Your task to perform on an android device: Open Chrome and go to settings Image 0: 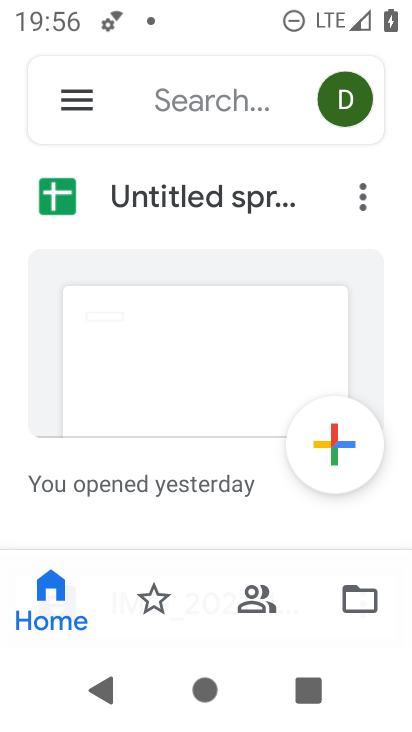
Step 0: press home button
Your task to perform on an android device: Open Chrome and go to settings Image 1: 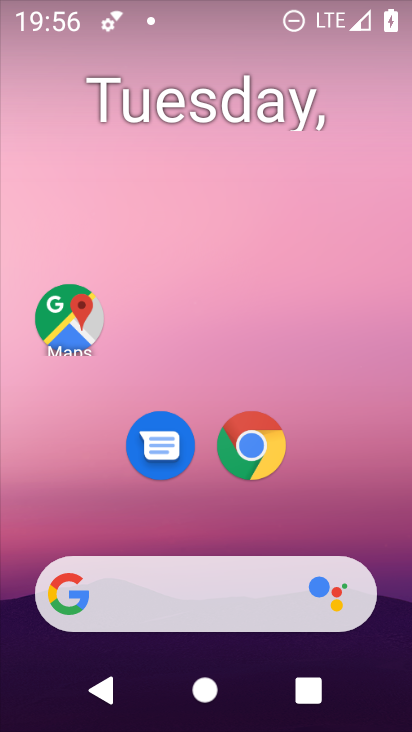
Step 1: click (259, 455)
Your task to perform on an android device: Open Chrome and go to settings Image 2: 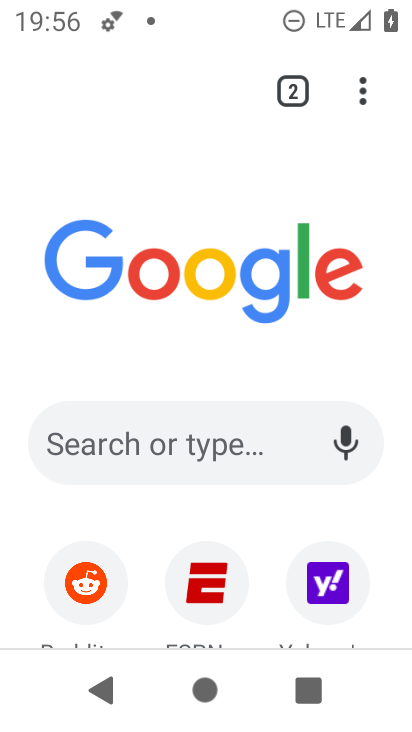
Step 2: click (364, 103)
Your task to perform on an android device: Open Chrome and go to settings Image 3: 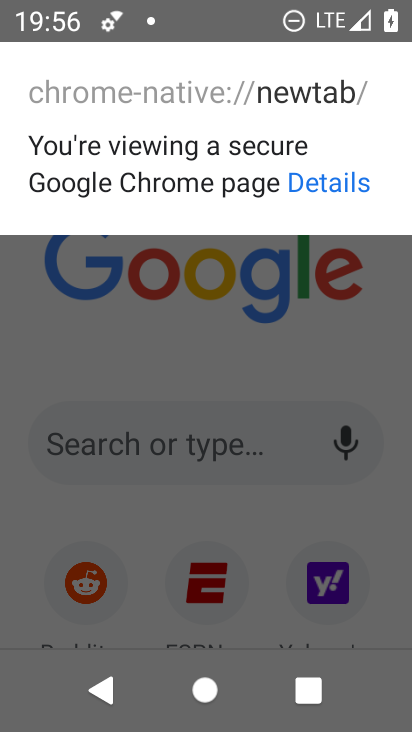
Step 3: click (262, 391)
Your task to perform on an android device: Open Chrome and go to settings Image 4: 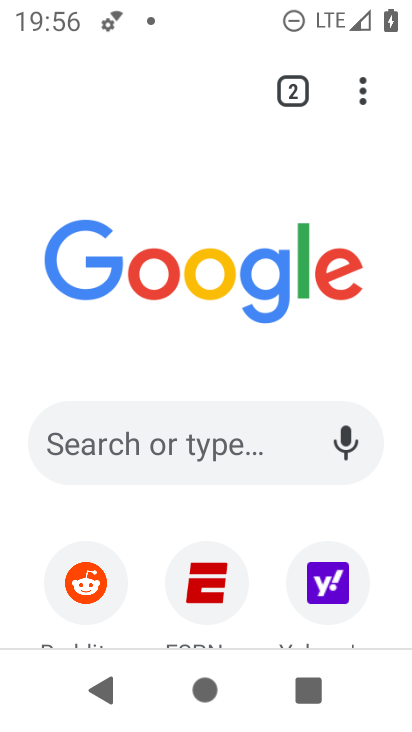
Step 4: click (364, 89)
Your task to perform on an android device: Open Chrome and go to settings Image 5: 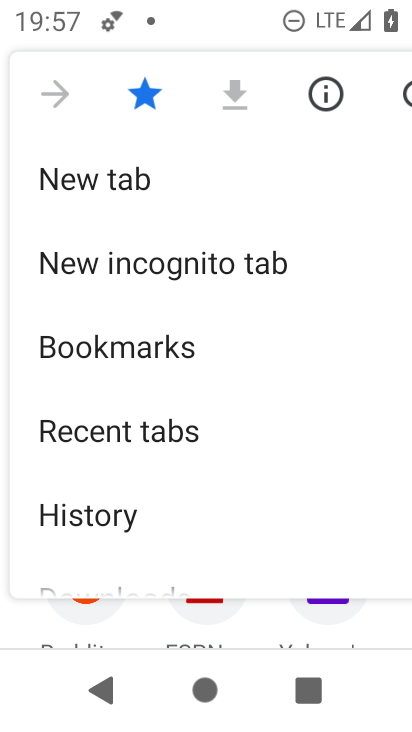
Step 5: drag from (150, 466) to (112, 165)
Your task to perform on an android device: Open Chrome and go to settings Image 6: 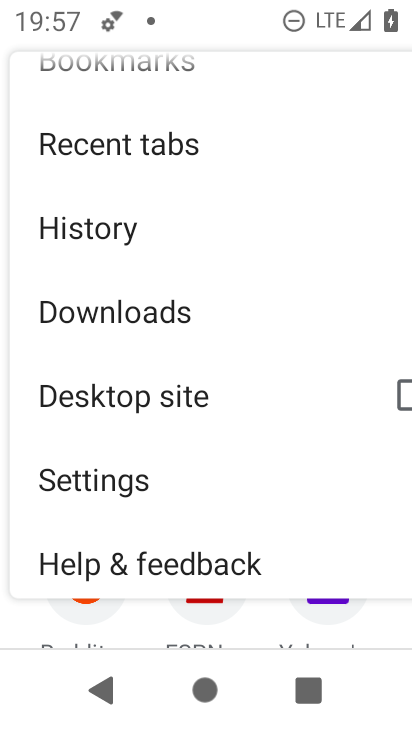
Step 6: click (108, 477)
Your task to perform on an android device: Open Chrome and go to settings Image 7: 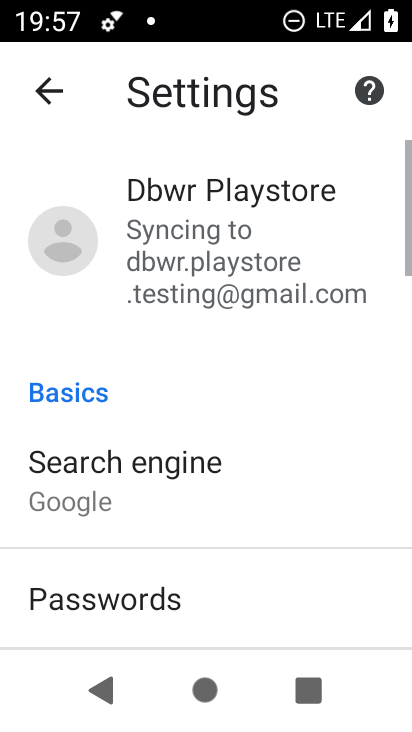
Step 7: task complete